Your task to perform on an android device: turn off translation in the chrome app Image 0: 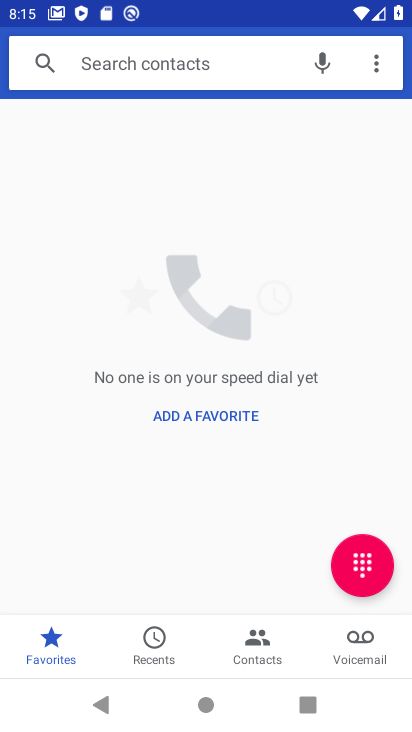
Step 0: press home button
Your task to perform on an android device: turn off translation in the chrome app Image 1: 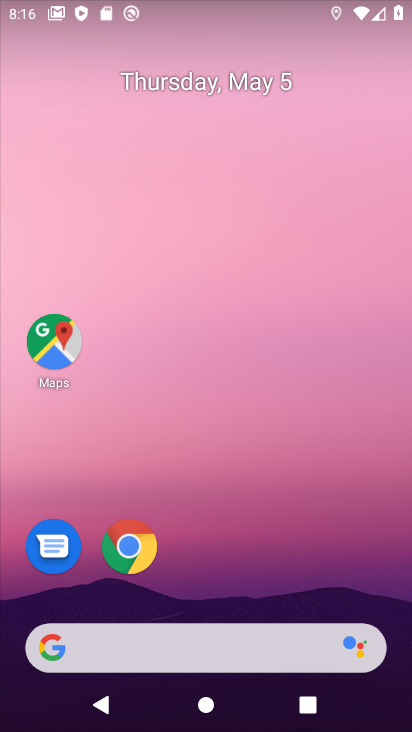
Step 1: drag from (282, 596) to (225, 177)
Your task to perform on an android device: turn off translation in the chrome app Image 2: 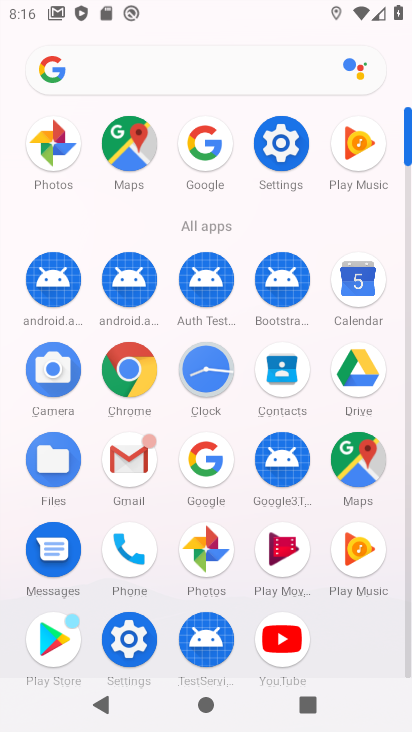
Step 2: click (120, 374)
Your task to perform on an android device: turn off translation in the chrome app Image 3: 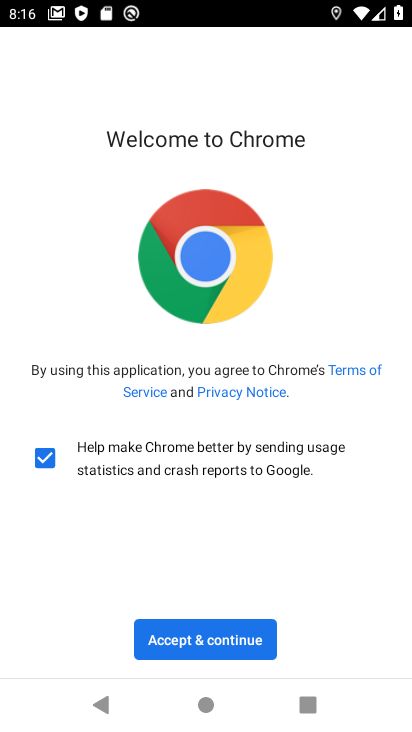
Step 3: click (203, 643)
Your task to perform on an android device: turn off translation in the chrome app Image 4: 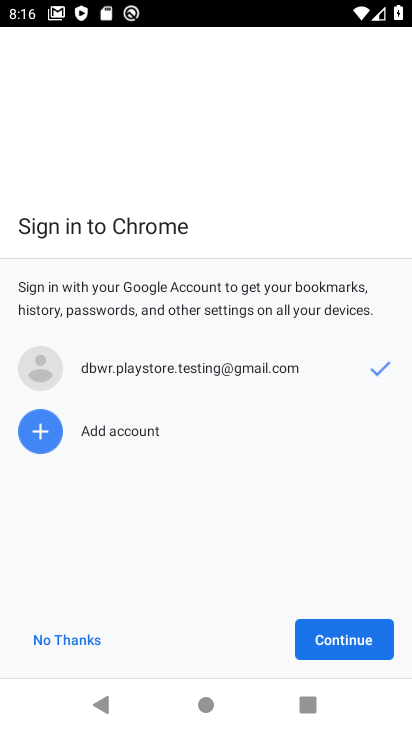
Step 4: click (346, 641)
Your task to perform on an android device: turn off translation in the chrome app Image 5: 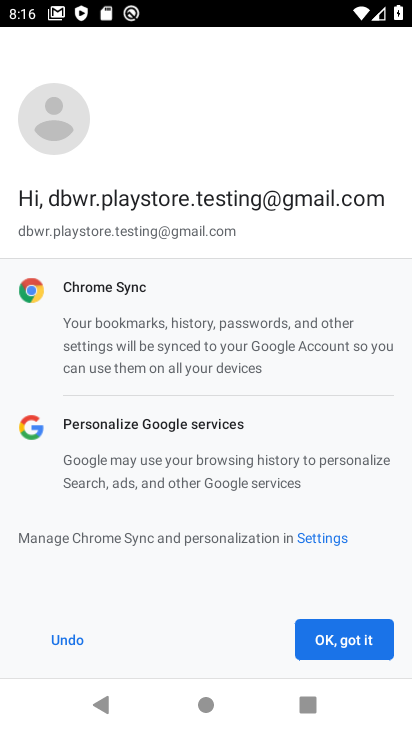
Step 5: click (346, 641)
Your task to perform on an android device: turn off translation in the chrome app Image 6: 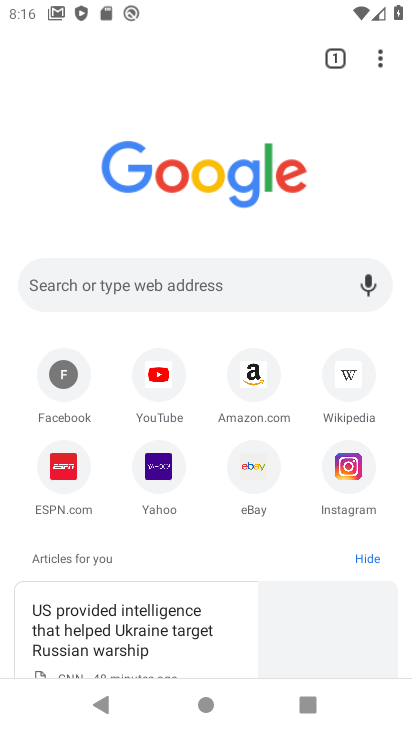
Step 6: drag from (378, 54) to (162, 492)
Your task to perform on an android device: turn off translation in the chrome app Image 7: 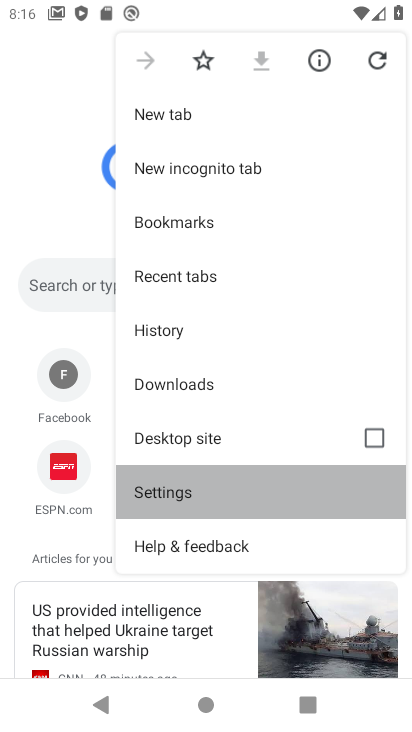
Step 7: click (162, 491)
Your task to perform on an android device: turn off translation in the chrome app Image 8: 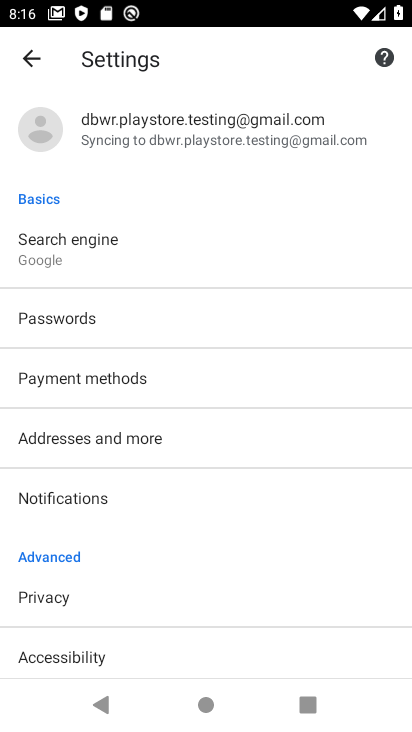
Step 8: drag from (66, 406) to (57, 195)
Your task to perform on an android device: turn off translation in the chrome app Image 9: 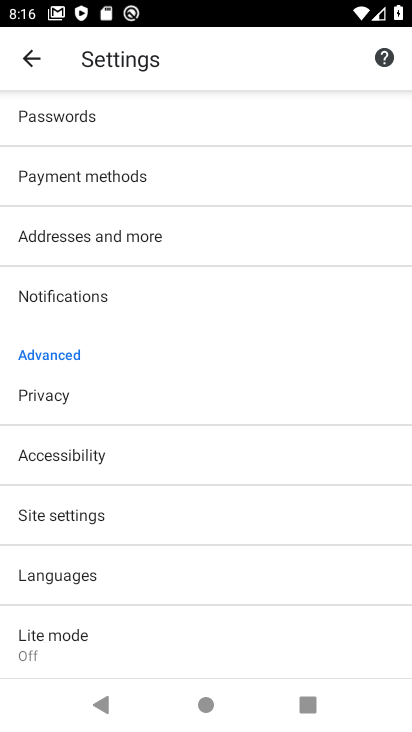
Step 9: click (69, 574)
Your task to perform on an android device: turn off translation in the chrome app Image 10: 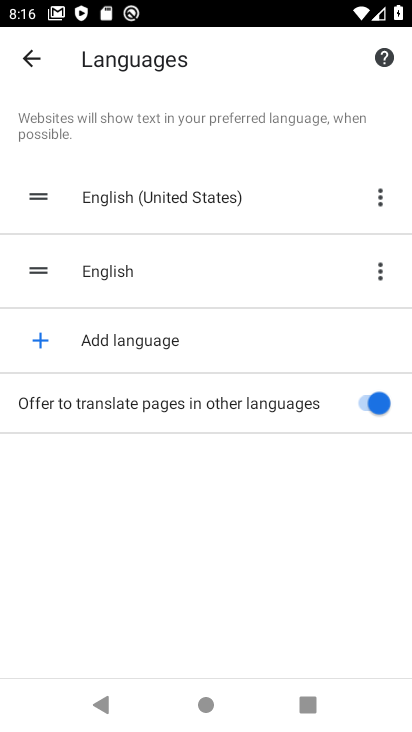
Step 10: click (24, 49)
Your task to perform on an android device: turn off translation in the chrome app Image 11: 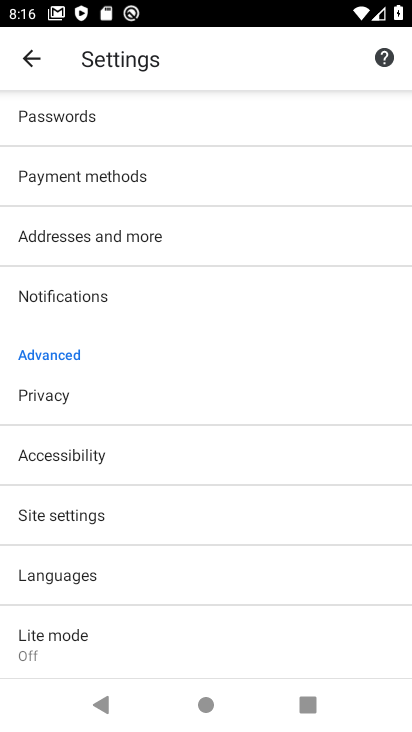
Step 11: click (71, 511)
Your task to perform on an android device: turn off translation in the chrome app Image 12: 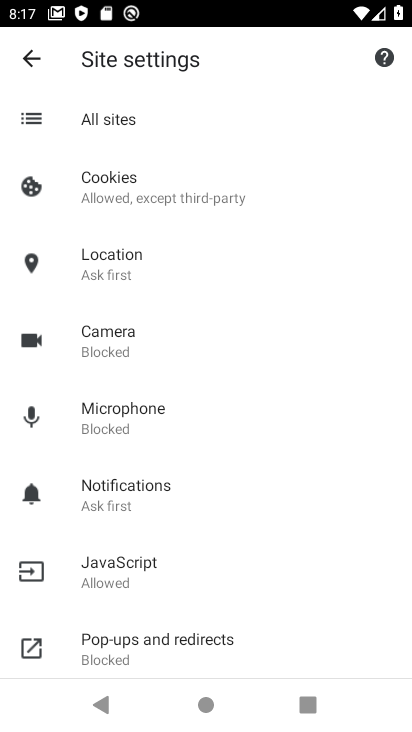
Step 12: click (31, 61)
Your task to perform on an android device: turn off translation in the chrome app Image 13: 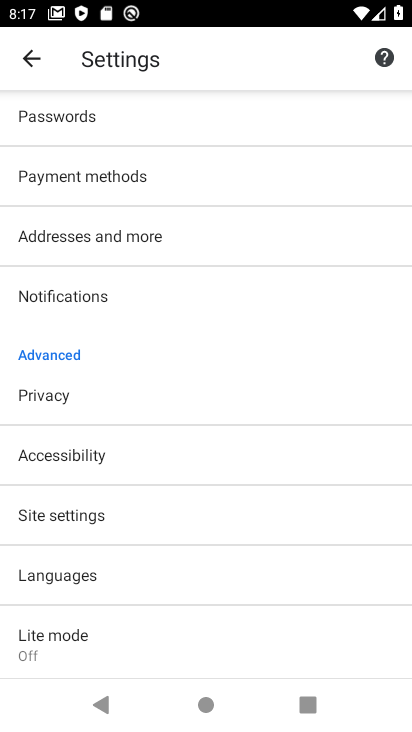
Step 13: drag from (68, 608) to (69, 258)
Your task to perform on an android device: turn off translation in the chrome app Image 14: 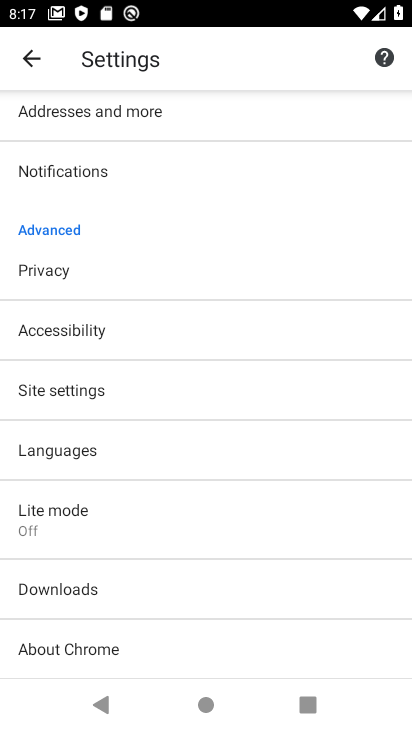
Step 14: drag from (42, 244) to (112, 488)
Your task to perform on an android device: turn off translation in the chrome app Image 15: 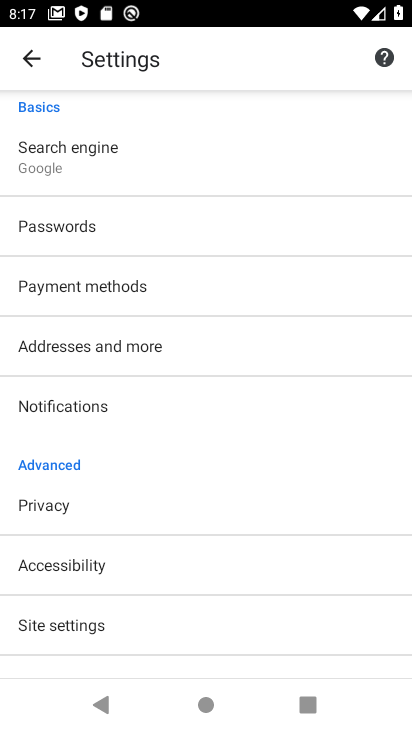
Step 15: drag from (61, 489) to (45, 140)
Your task to perform on an android device: turn off translation in the chrome app Image 16: 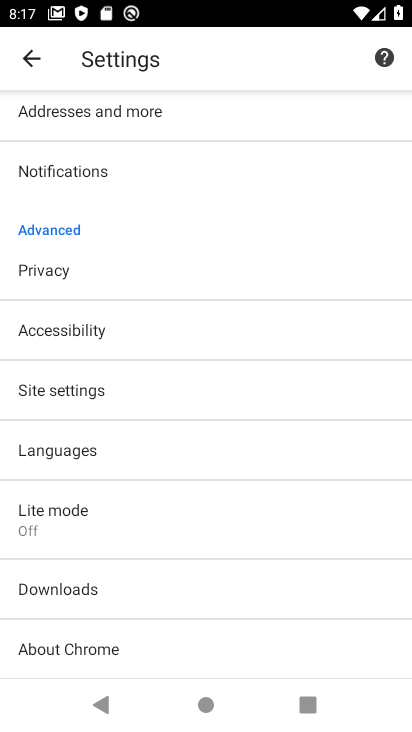
Step 16: click (44, 451)
Your task to perform on an android device: turn off translation in the chrome app Image 17: 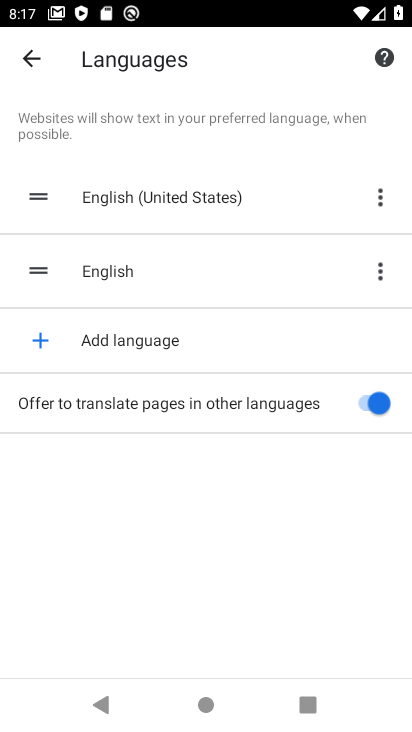
Step 17: click (381, 401)
Your task to perform on an android device: turn off translation in the chrome app Image 18: 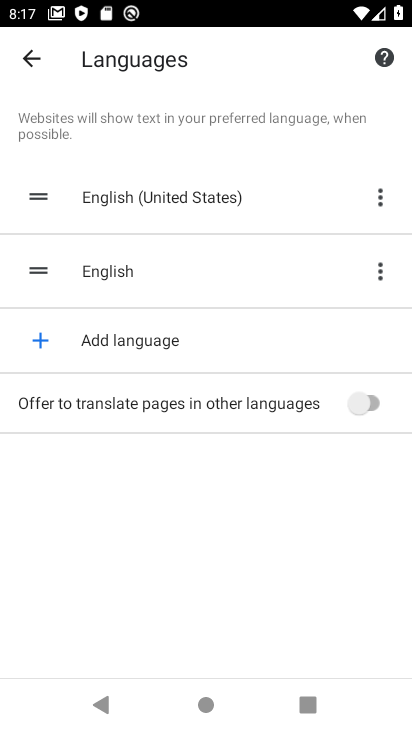
Step 18: task complete